Your task to perform on an android device: Open Chrome and go to settings Image 0: 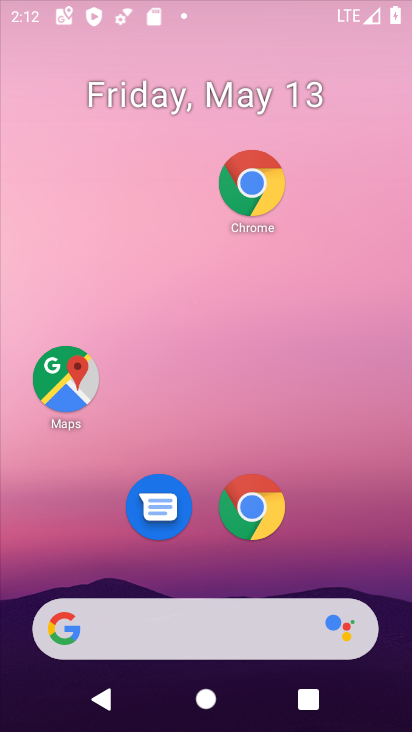
Step 0: drag from (389, 684) to (117, 1)
Your task to perform on an android device: Open Chrome and go to settings Image 1: 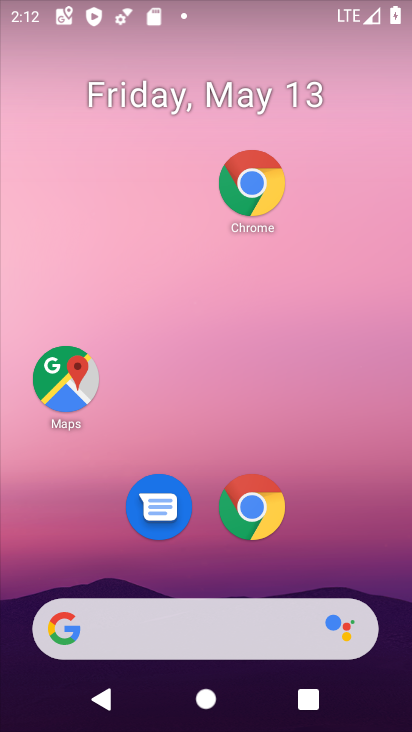
Step 1: drag from (336, 568) to (259, 25)
Your task to perform on an android device: Open Chrome and go to settings Image 2: 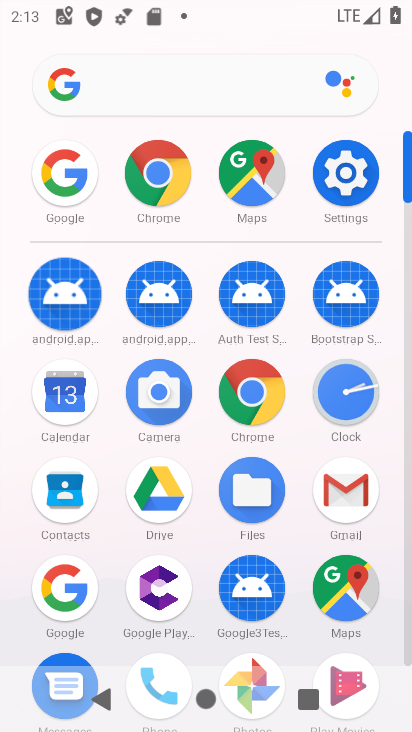
Step 2: click (339, 178)
Your task to perform on an android device: Open Chrome and go to settings Image 3: 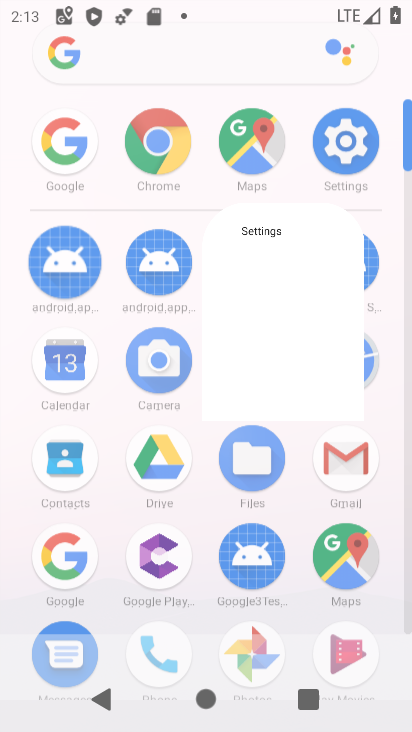
Step 3: press back button
Your task to perform on an android device: Open Chrome and go to settings Image 4: 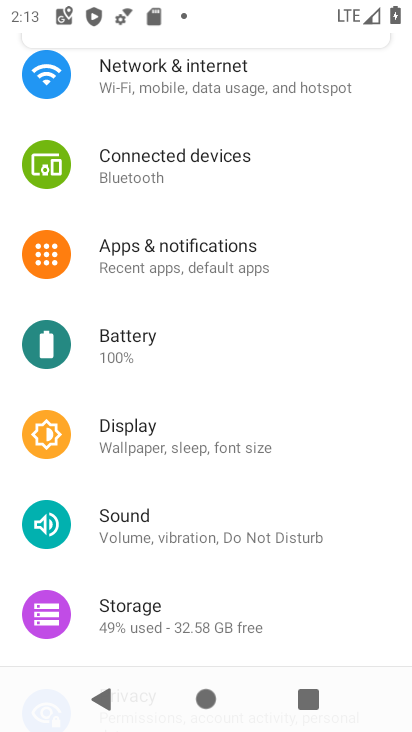
Step 4: click (166, 173)
Your task to perform on an android device: Open Chrome and go to settings Image 5: 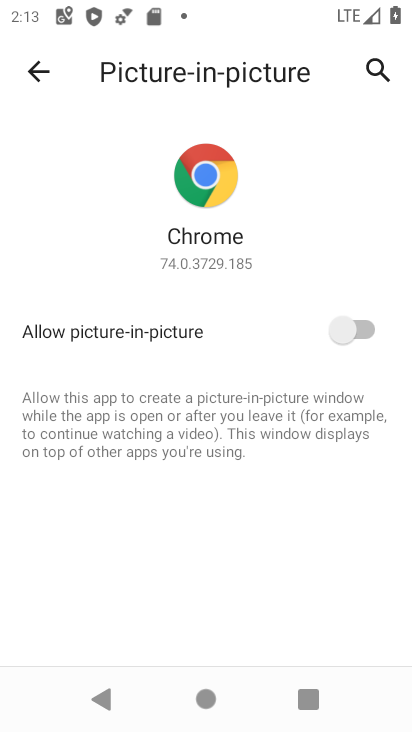
Step 5: click (30, 72)
Your task to perform on an android device: Open Chrome and go to settings Image 6: 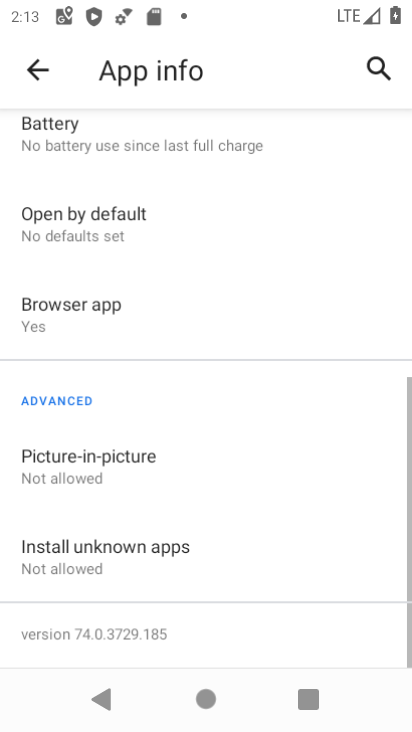
Step 6: click (31, 77)
Your task to perform on an android device: Open Chrome and go to settings Image 7: 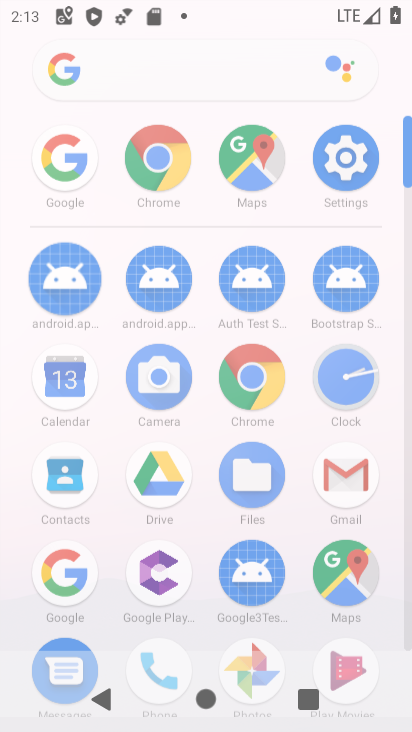
Step 7: click (42, 82)
Your task to perform on an android device: Open Chrome and go to settings Image 8: 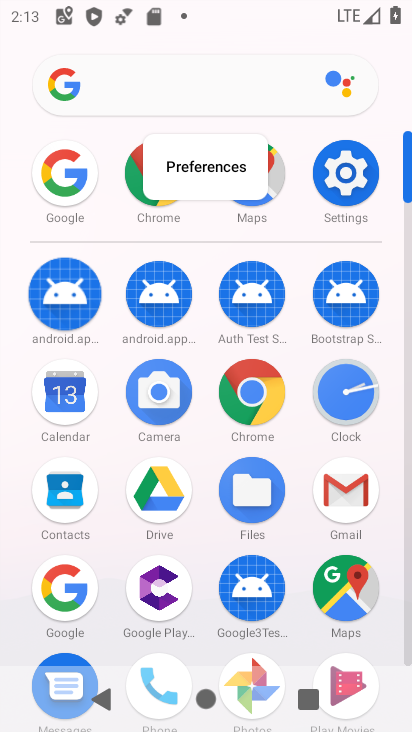
Step 8: click (39, 80)
Your task to perform on an android device: Open Chrome and go to settings Image 9: 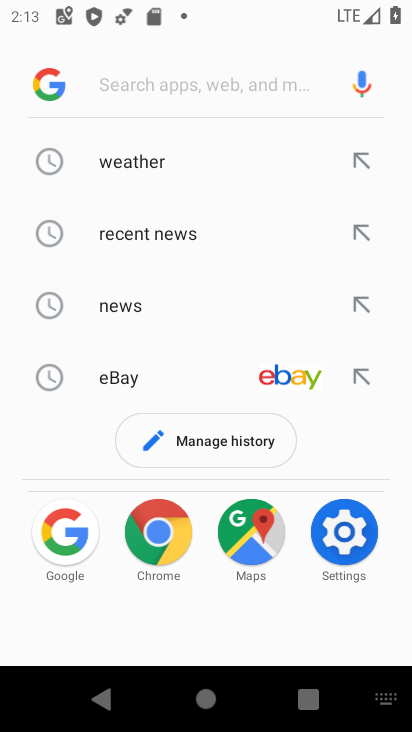
Step 9: press back button
Your task to perform on an android device: Open Chrome and go to settings Image 10: 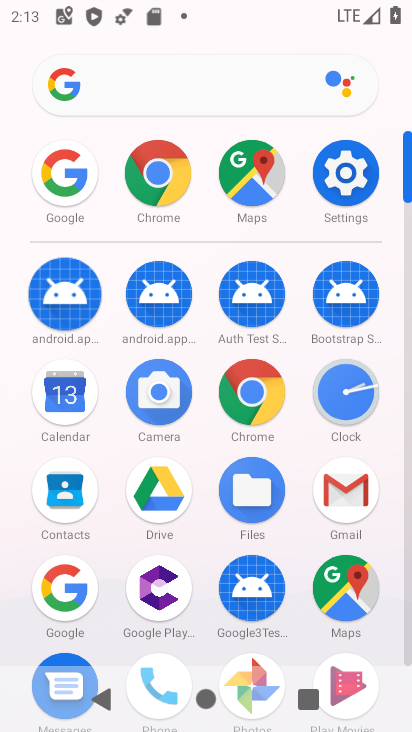
Step 10: click (163, 189)
Your task to perform on an android device: Open Chrome and go to settings Image 11: 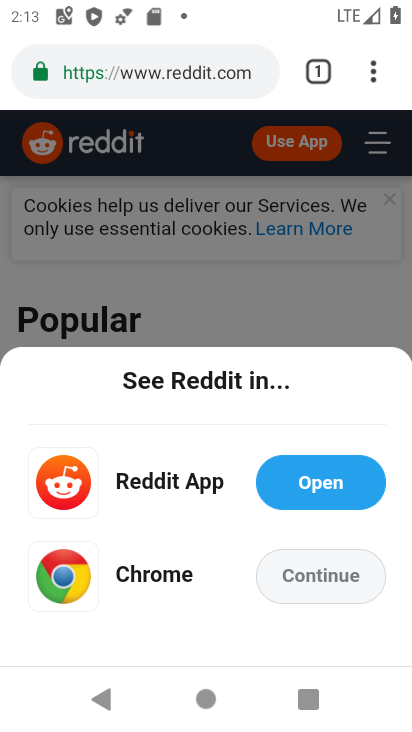
Step 11: drag from (371, 67) to (102, 493)
Your task to perform on an android device: Open Chrome and go to settings Image 12: 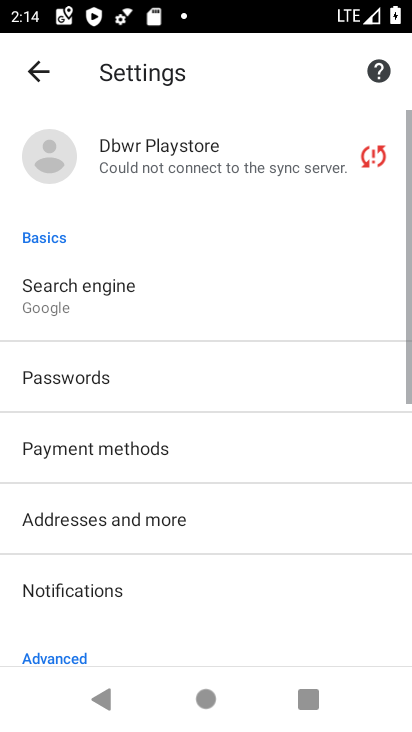
Step 12: click (88, 497)
Your task to perform on an android device: Open Chrome and go to settings Image 13: 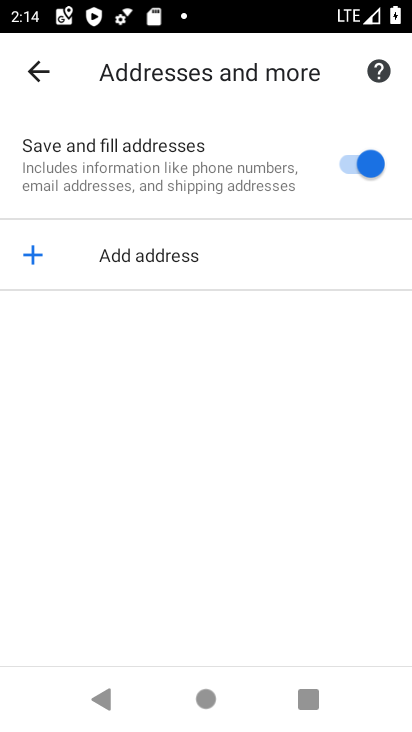
Step 13: task complete